Your task to perform on an android device: Go to calendar. Show me events next week Image 0: 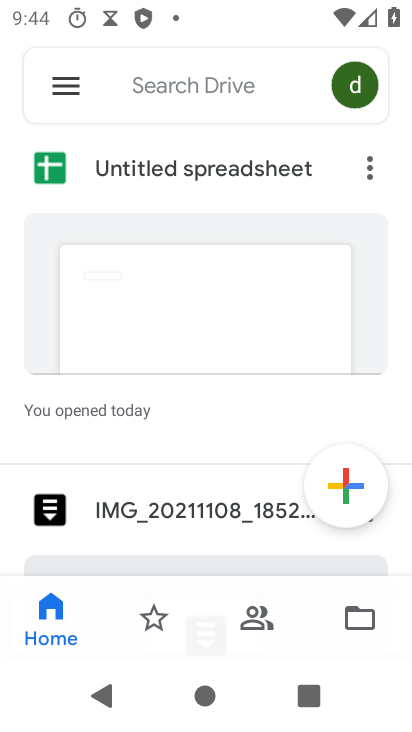
Step 0: press home button
Your task to perform on an android device: Go to calendar. Show me events next week Image 1: 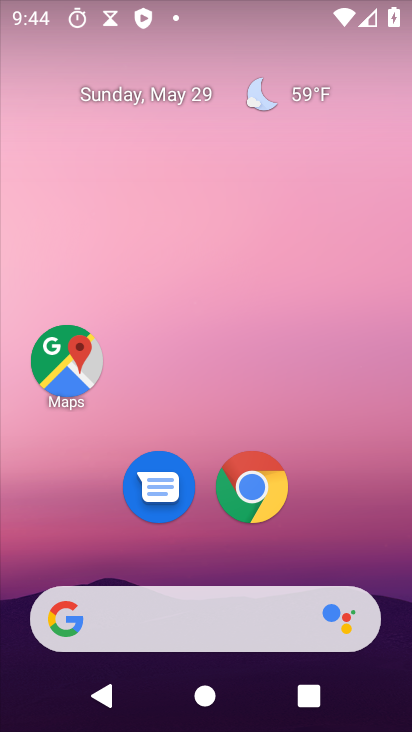
Step 1: drag from (316, 555) to (203, 48)
Your task to perform on an android device: Go to calendar. Show me events next week Image 2: 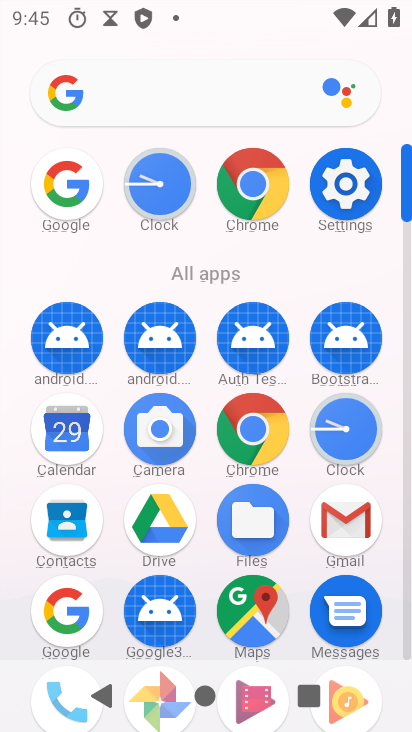
Step 2: click (67, 433)
Your task to perform on an android device: Go to calendar. Show me events next week Image 3: 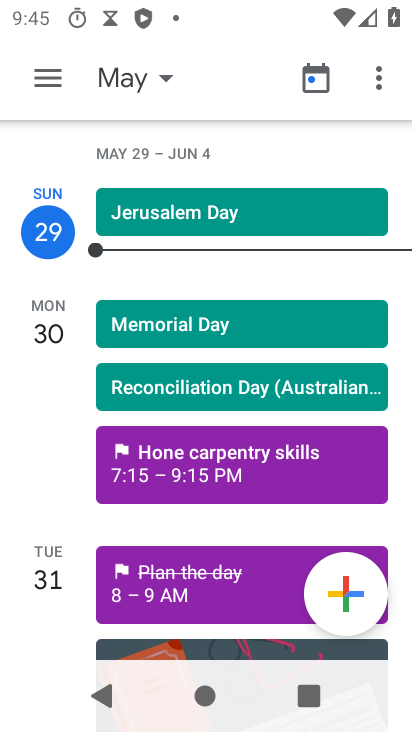
Step 3: click (163, 78)
Your task to perform on an android device: Go to calendar. Show me events next week Image 4: 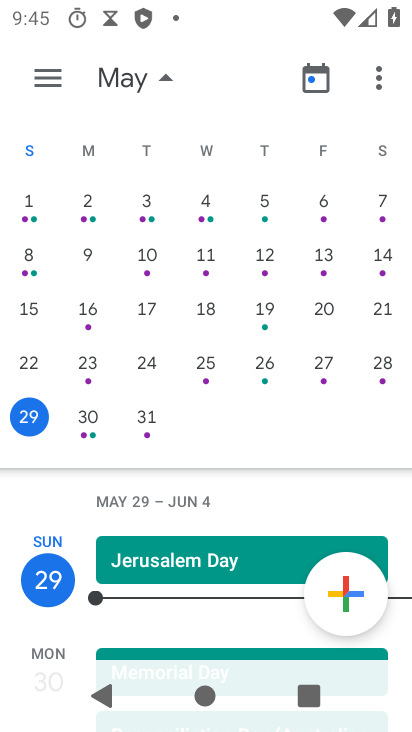
Step 4: click (167, 80)
Your task to perform on an android device: Go to calendar. Show me events next week Image 5: 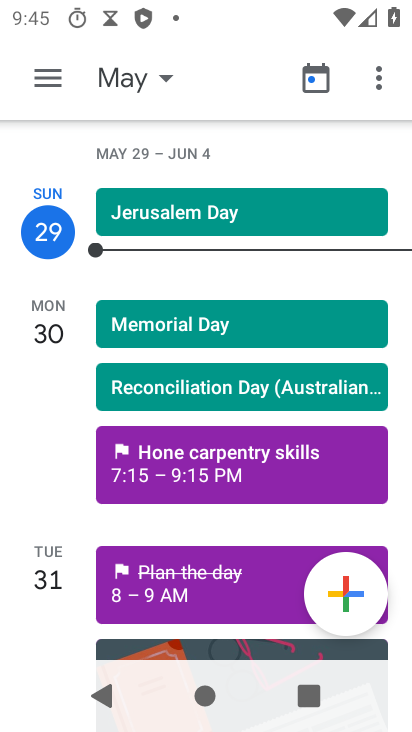
Step 5: click (167, 79)
Your task to perform on an android device: Go to calendar. Show me events next week Image 6: 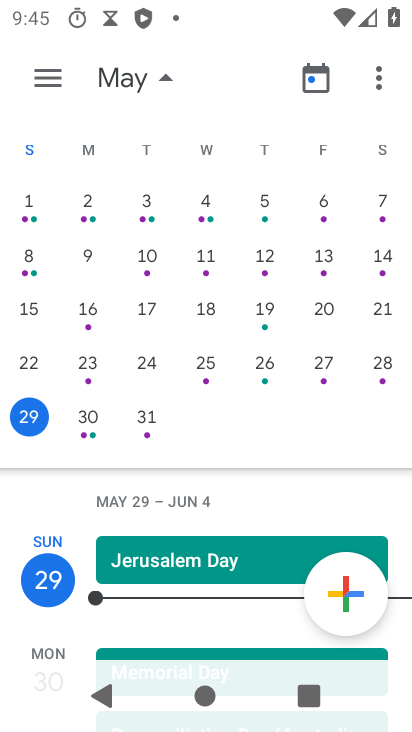
Step 6: drag from (309, 341) to (35, 374)
Your task to perform on an android device: Go to calendar. Show me events next week Image 7: 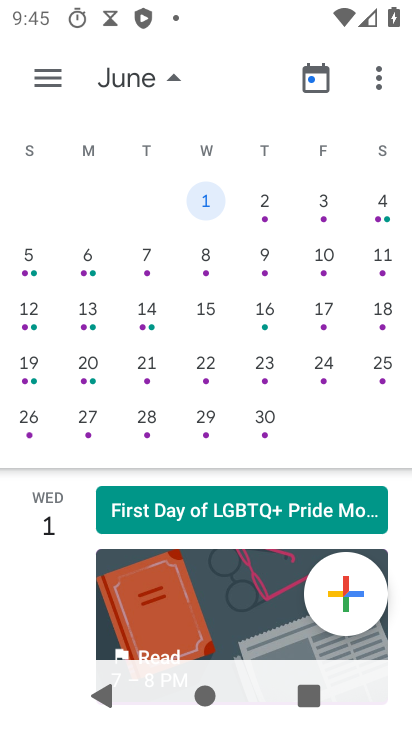
Step 7: click (264, 208)
Your task to perform on an android device: Go to calendar. Show me events next week Image 8: 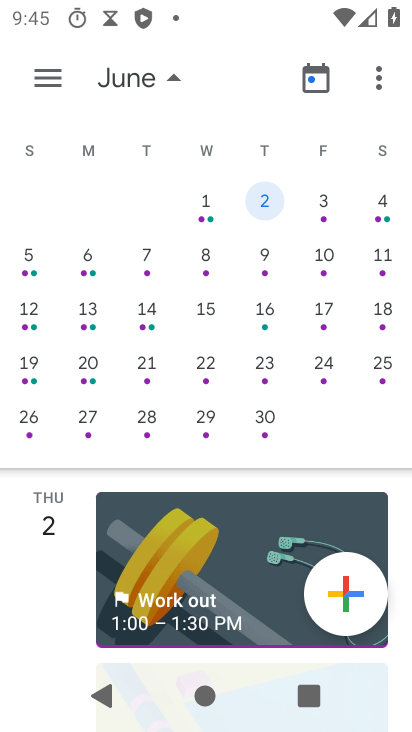
Step 8: click (202, 207)
Your task to perform on an android device: Go to calendar. Show me events next week Image 9: 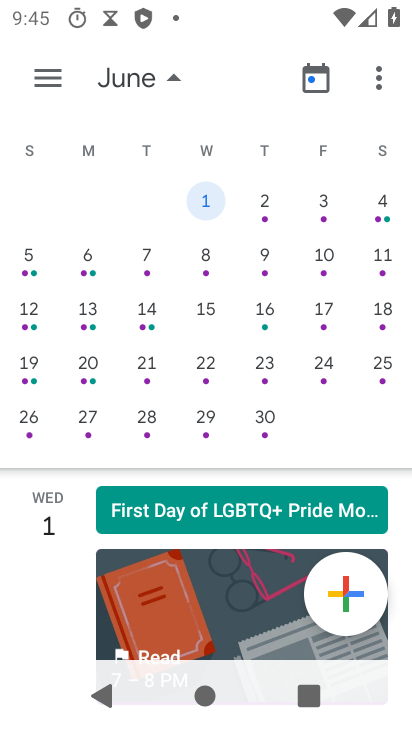
Step 9: click (56, 74)
Your task to perform on an android device: Go to calendar. Show me events next week Image 10: 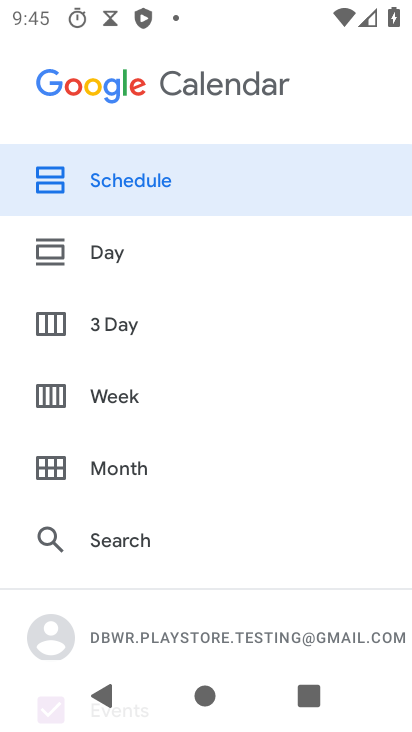
Step 10: click (125, 407)
Your task to perform on an android device: Go to calendar. Show me events next week Image 11: 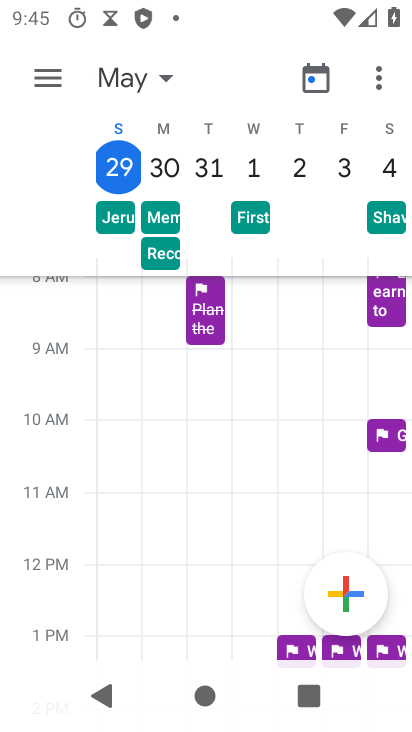
Step 11: task complete